Your task to perform on an android device: Search for "usb-a to usb-b" on amazon, select the first entry, and add it to the cart. Image 0: 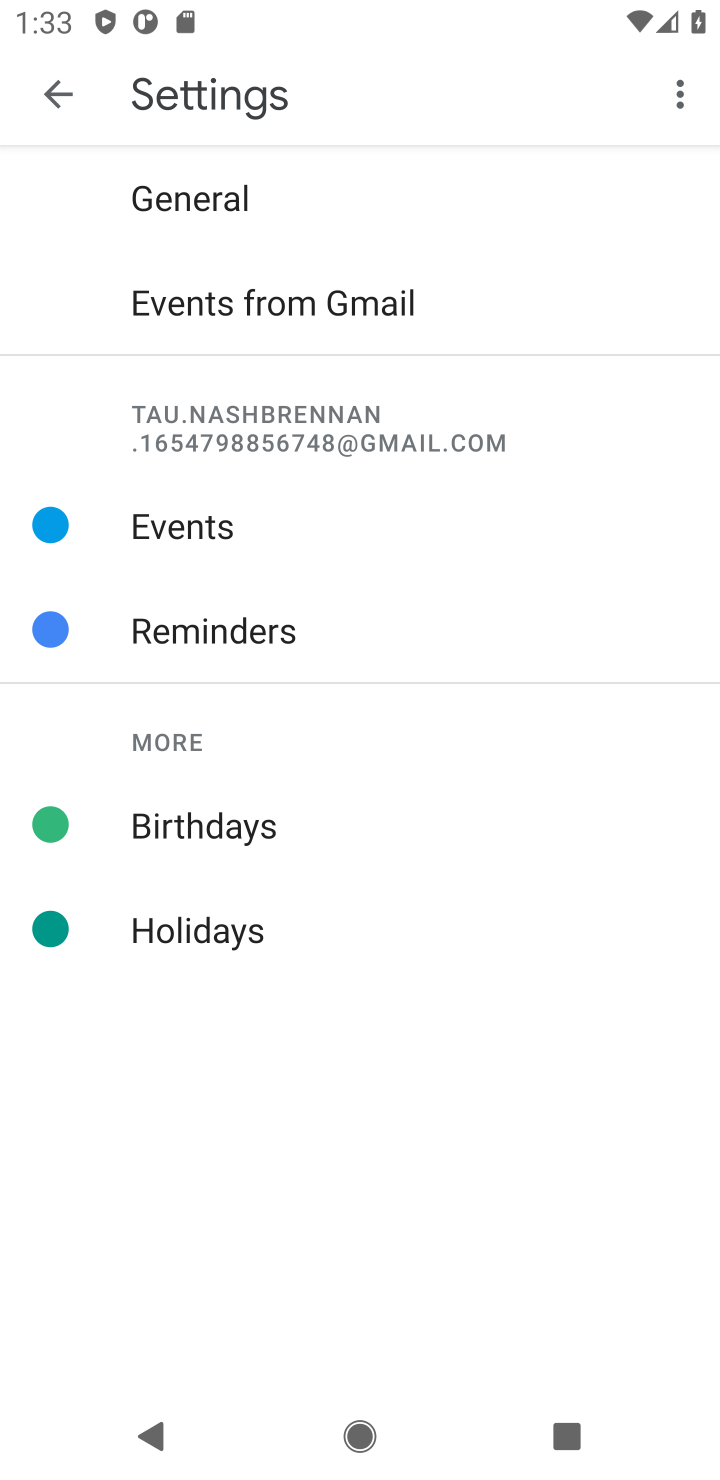
Step 0: press home button
Your task to perform on an android device: Search for "usb-a to usb-b" on amazon, select the first entry, and add it to the cart. Image 1: 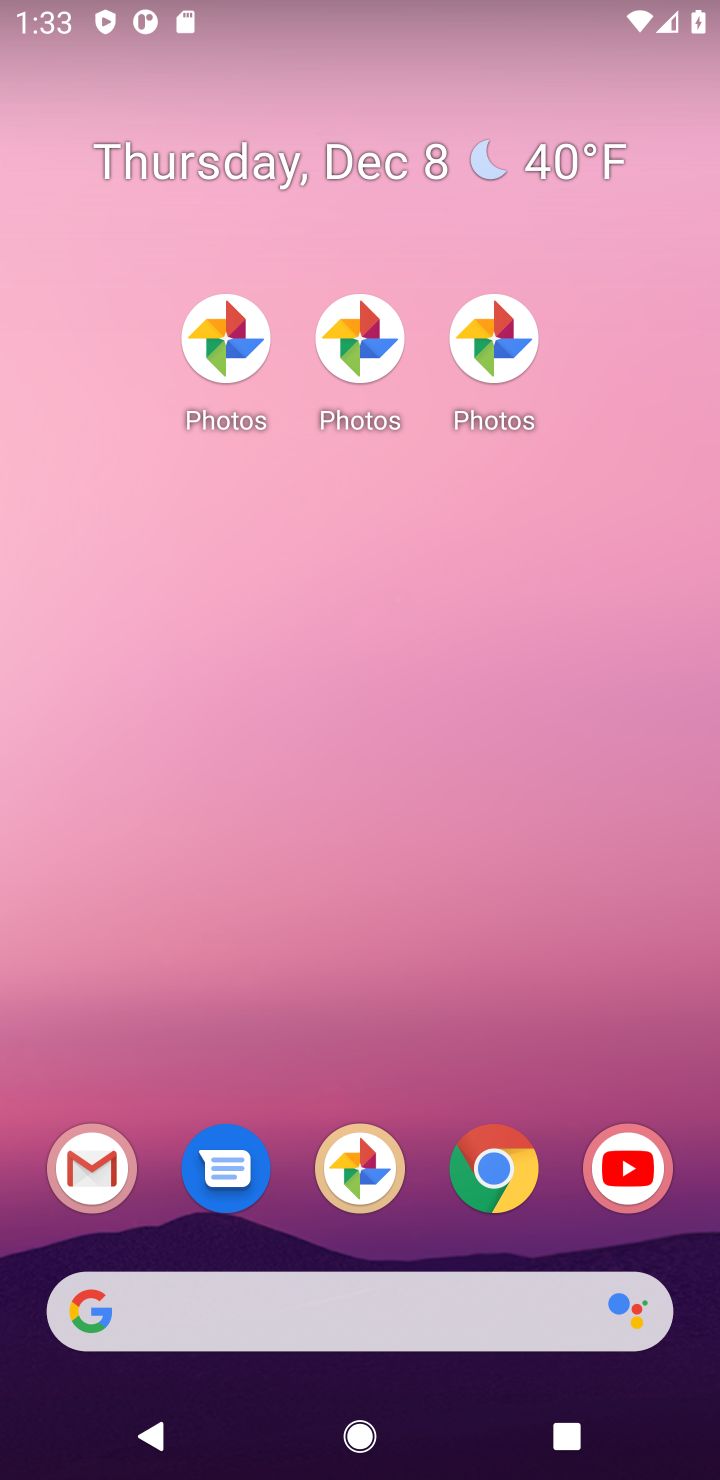
Step 1: drag from (335, 1216) to (355, 613)
Your task to perform on an android device: Search for "usb-a to usb-b" on amazon, select the first entry, and add it to the cart. Image 2: 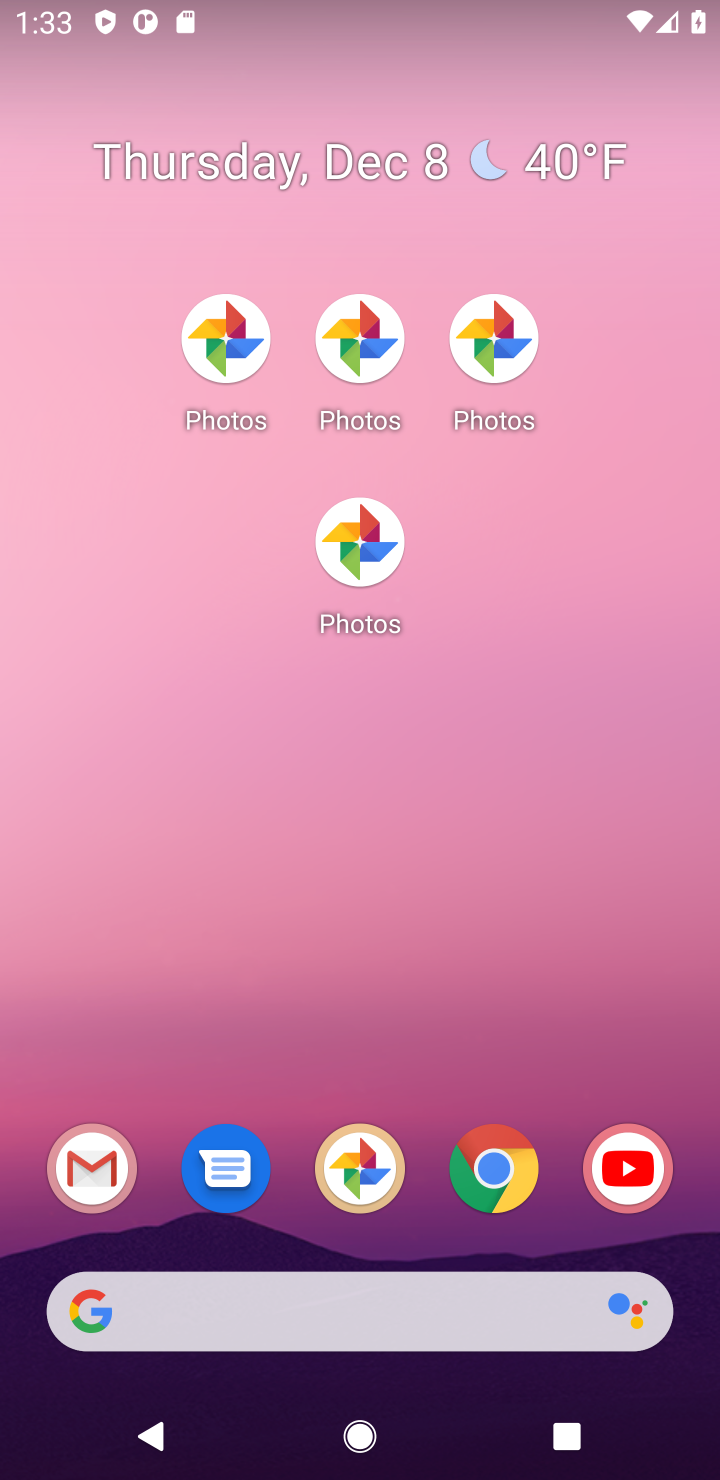
Step 2: drag from (406, 970) to (418, 641)
Your task to perform on an android device: Search for "usb-a to usb-b" on amazon, select the first entry, and add it to the cart. Image 3: 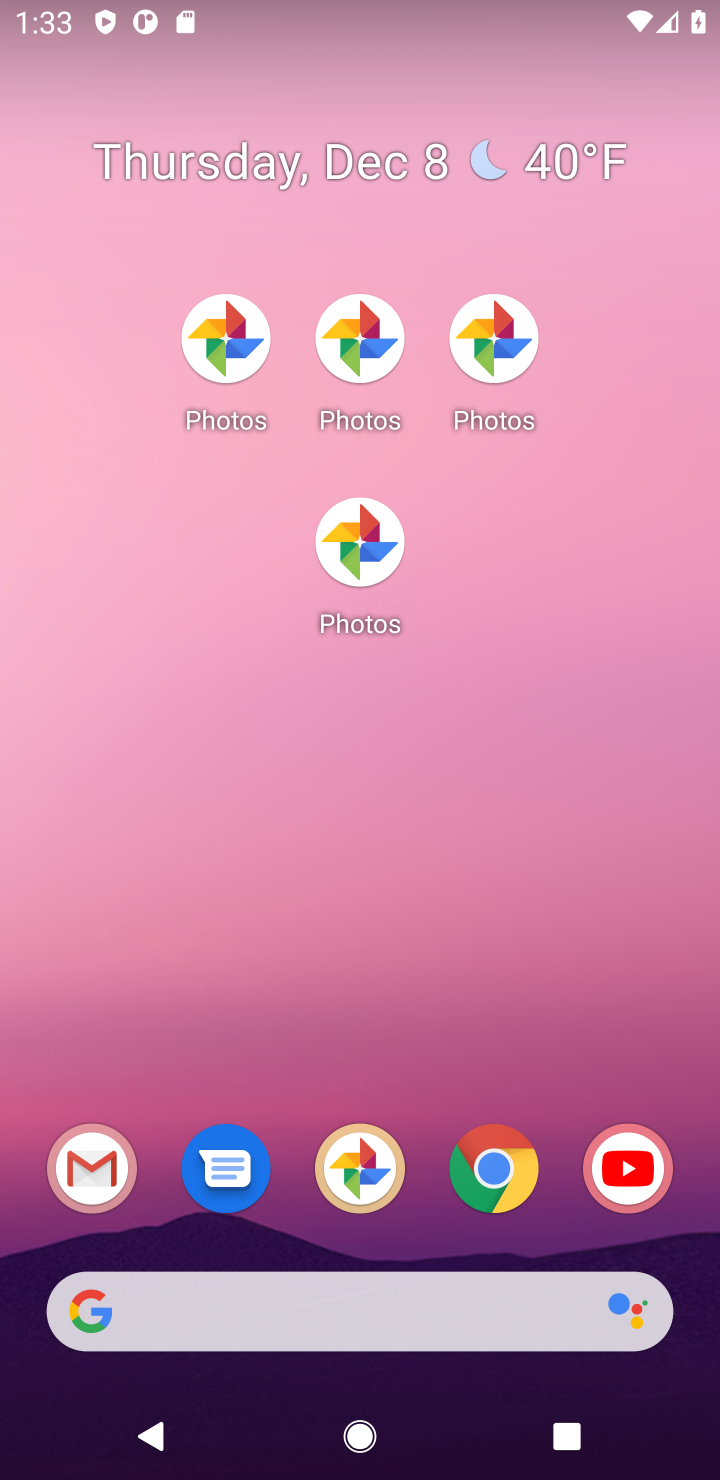
Step 3: drag from (406, 1256) to (439, 414)
Your task to perform on an android device: Search for "usb-a to usb-b" on amazon, select the first entry, and add it to the cart. Image 4: 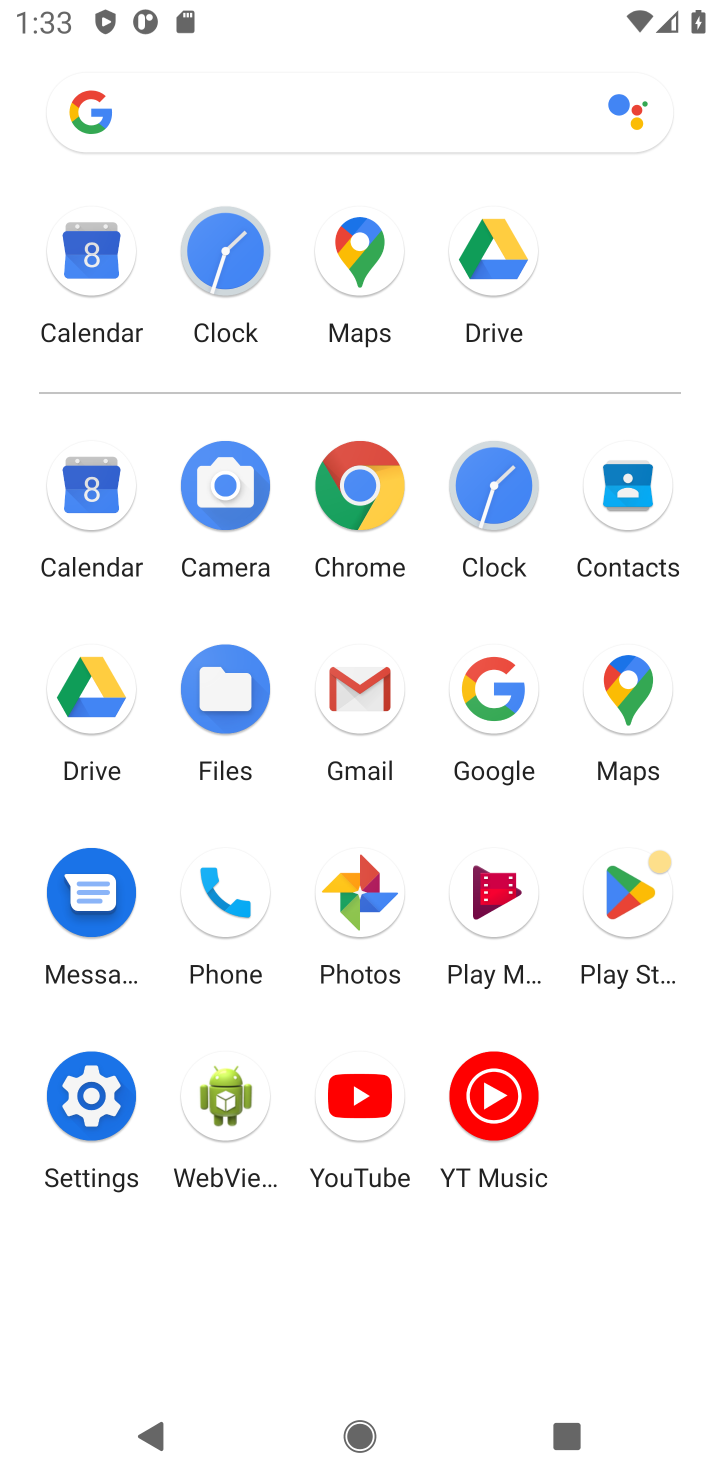
Step 4: click (487, 666)
Your task to perform on an android device: Search for "usb-a to usb-b" on amazon, select the first entry, and add it to the cart. Image 5: 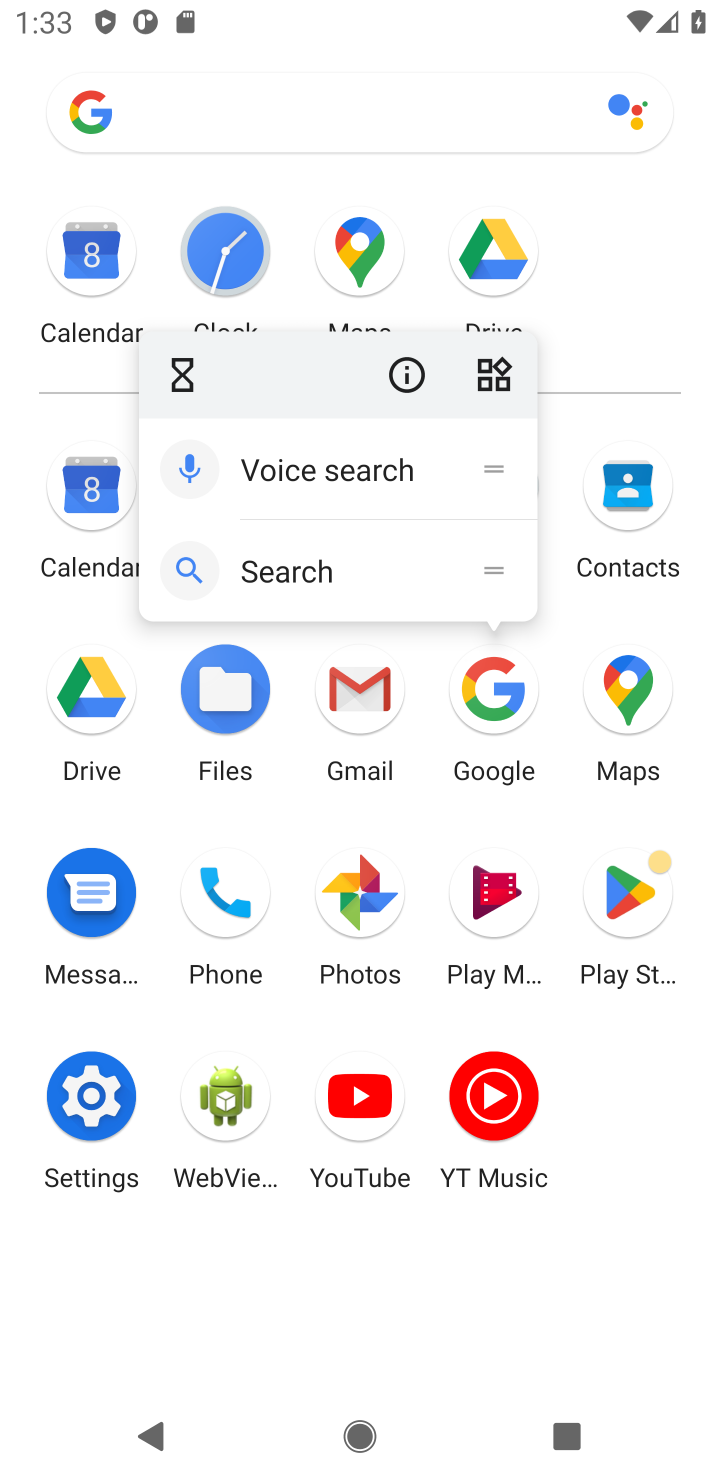
Step 5: click (481, 699)
Your task to perform on an android device: Search for "usb-a to usb-b" on amazon, select the first entry, and add it to the cart. Image 6: 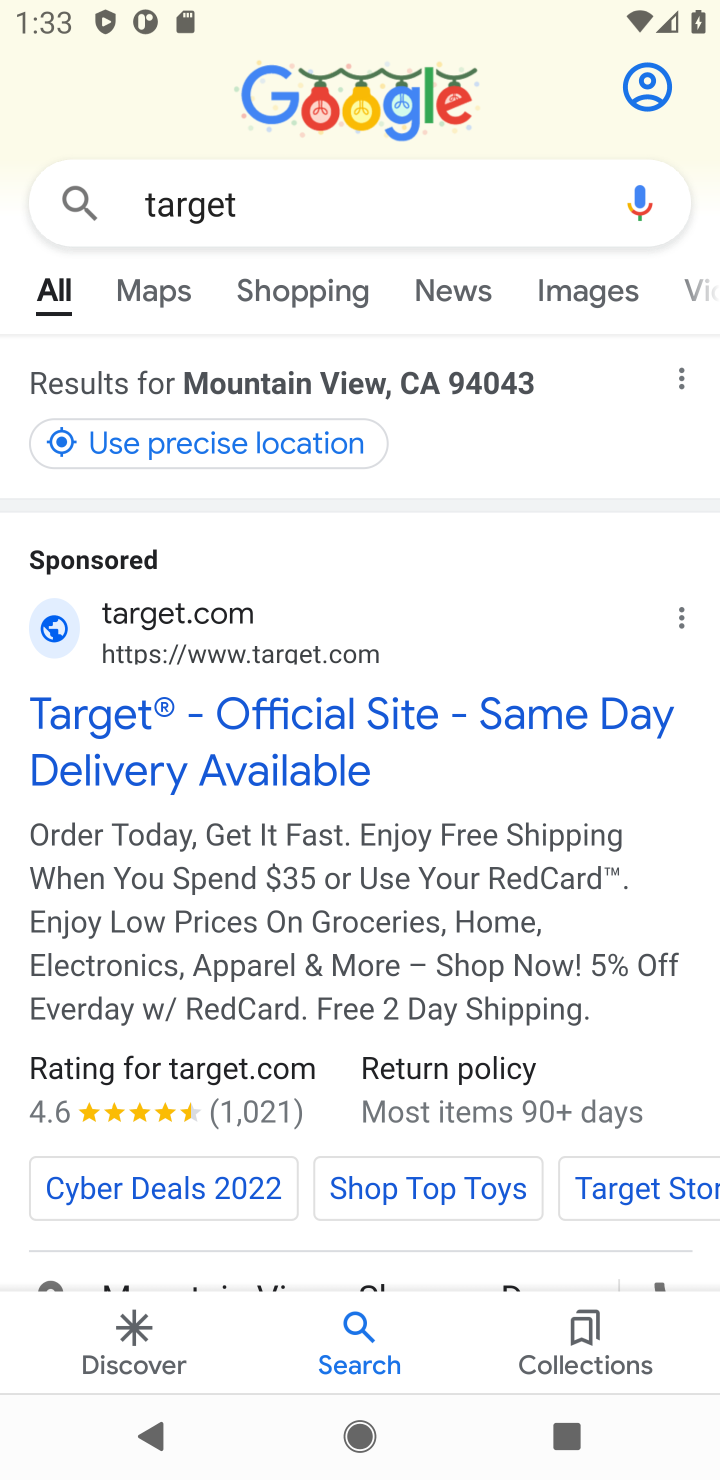
Step 6: click (179, 207)
Your task to perform on an android device: Search for "usb-a to usb-b" on amazon, select the first entry, and add it to the cart. Image 7: 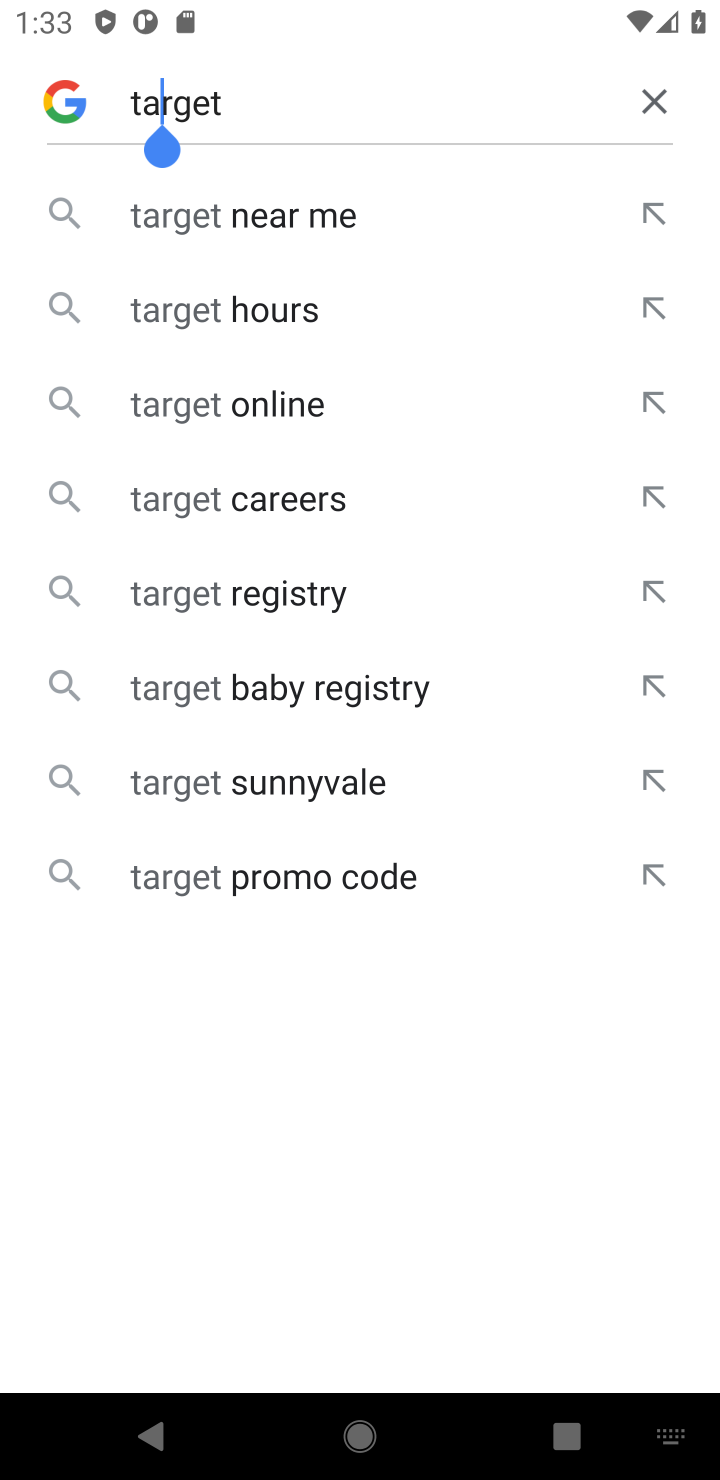
Step 7: click (653, 99)
Your task to perform on an android device: Search for "usb-a to usb-b" on amazon, select the first entry, and add it to the cart. Image 8: 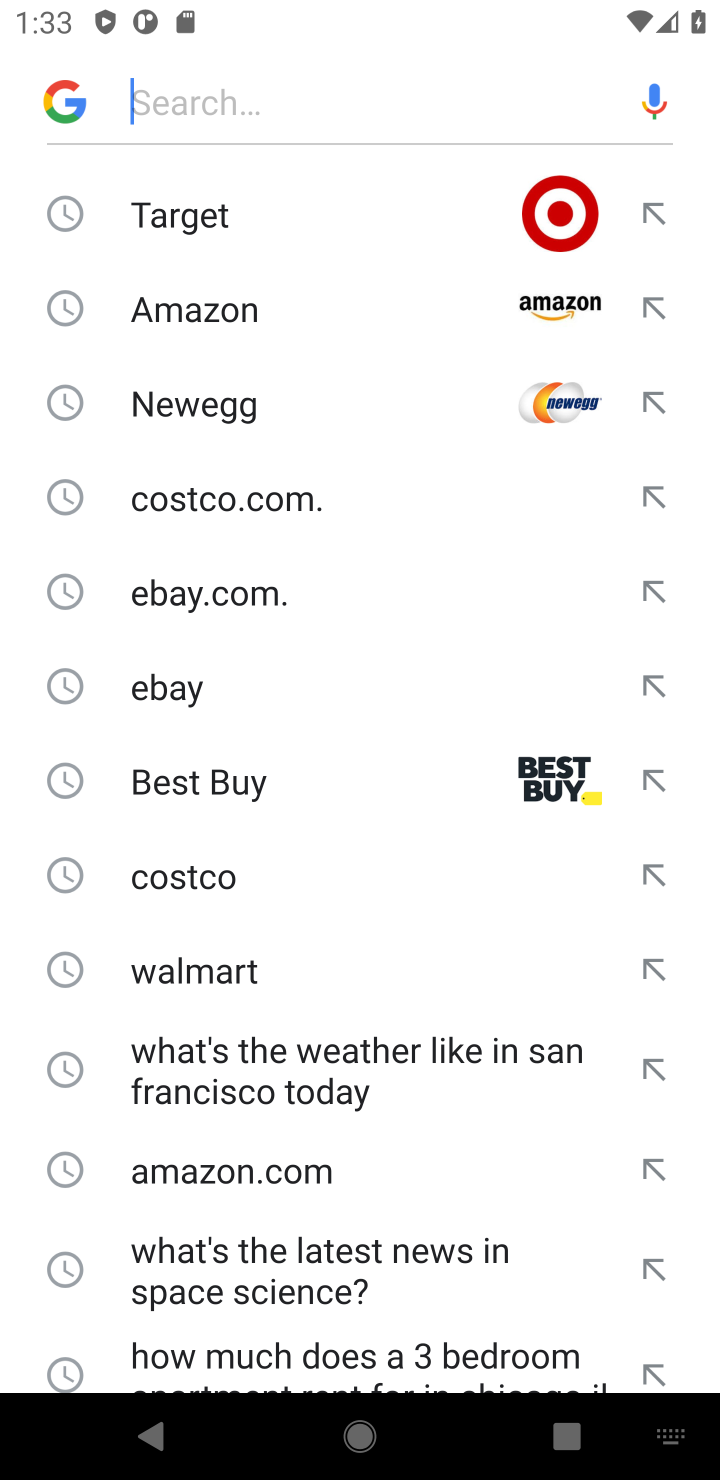
Step 8: click (185, 317)
Your task to perform on an android device: Search for "usb-a to usb-b" on amazon, select the first entry, and add it to the cart. Image 9: 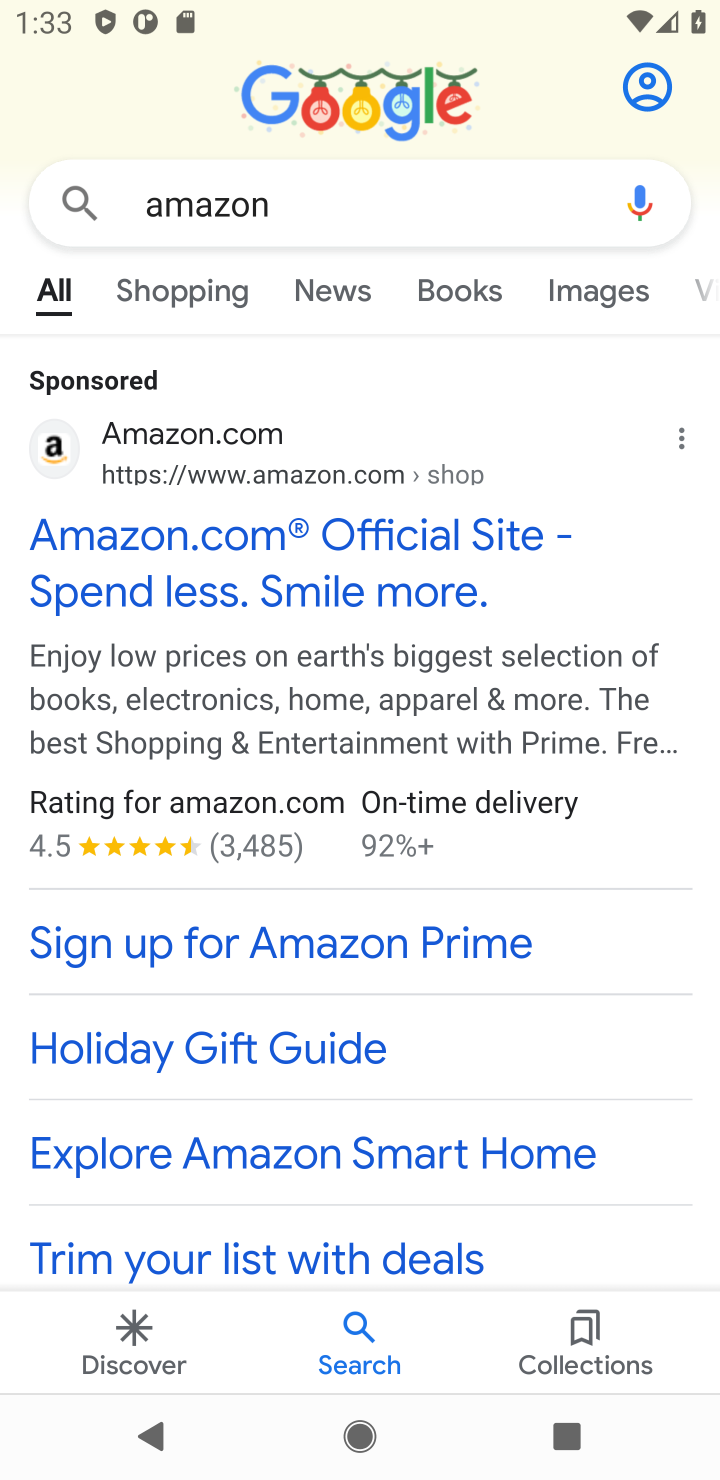
Step 9: click (215, 605)
Your task to perform on an android device: Search for "usb-a to usb-b" on amazon, select the first entry, and add it to the cart. Image 10: 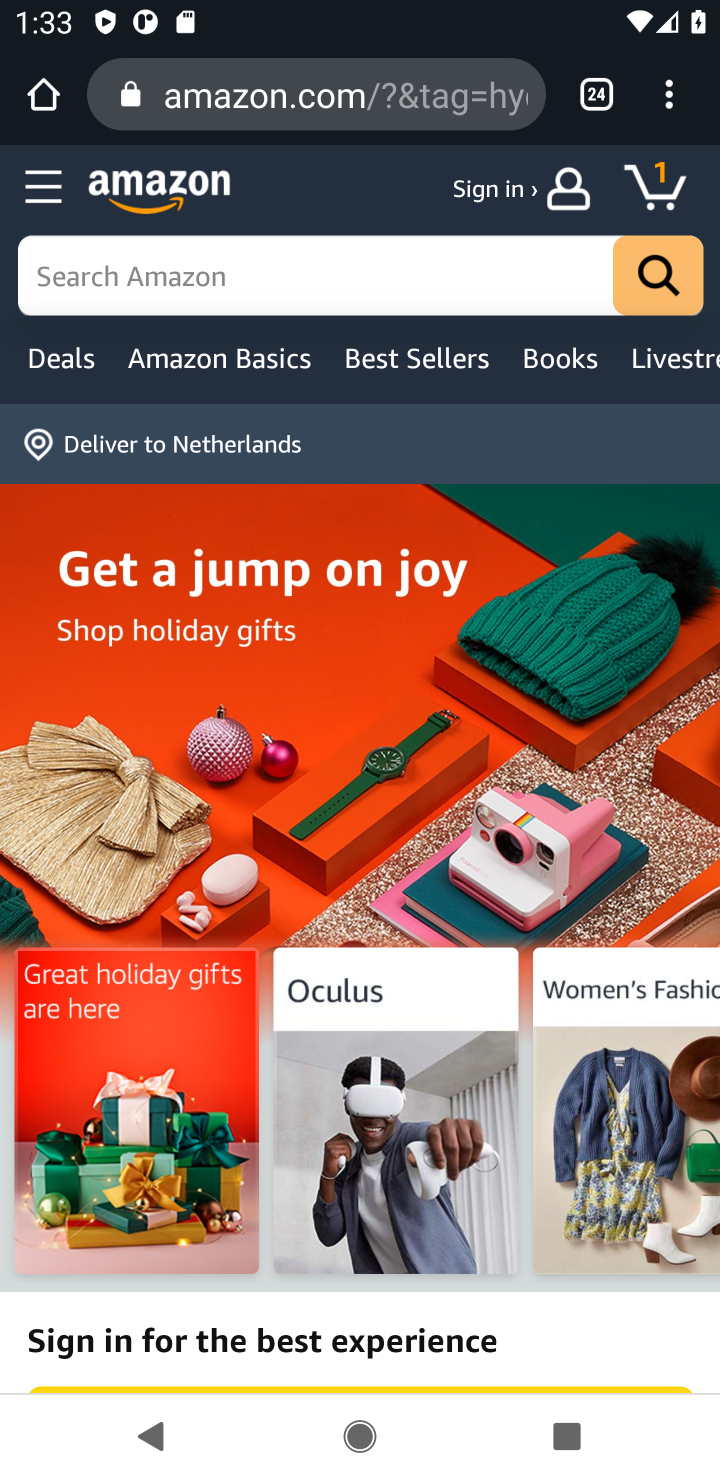
Step 10: click (167, 287)
Your task to perform on an android device: Search for "usb-a to usb-b" on amazon, select the first entry, and add it to the cart. Image 11: 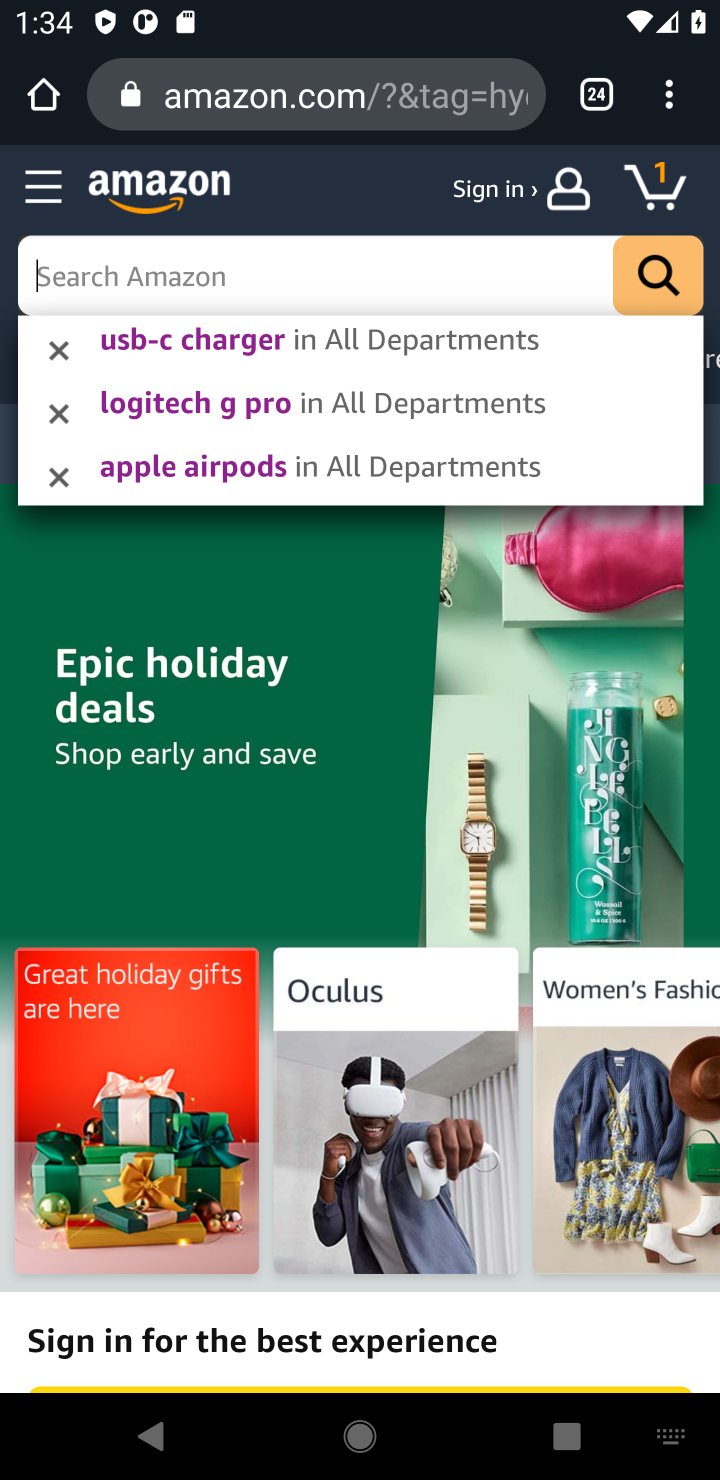
Step 11: type "usb-a to usb-b"
Your task to perform on an android device: Search for "usb-a to usb-b" on amazon, select the first entry, and add it to the cart. Image 12: 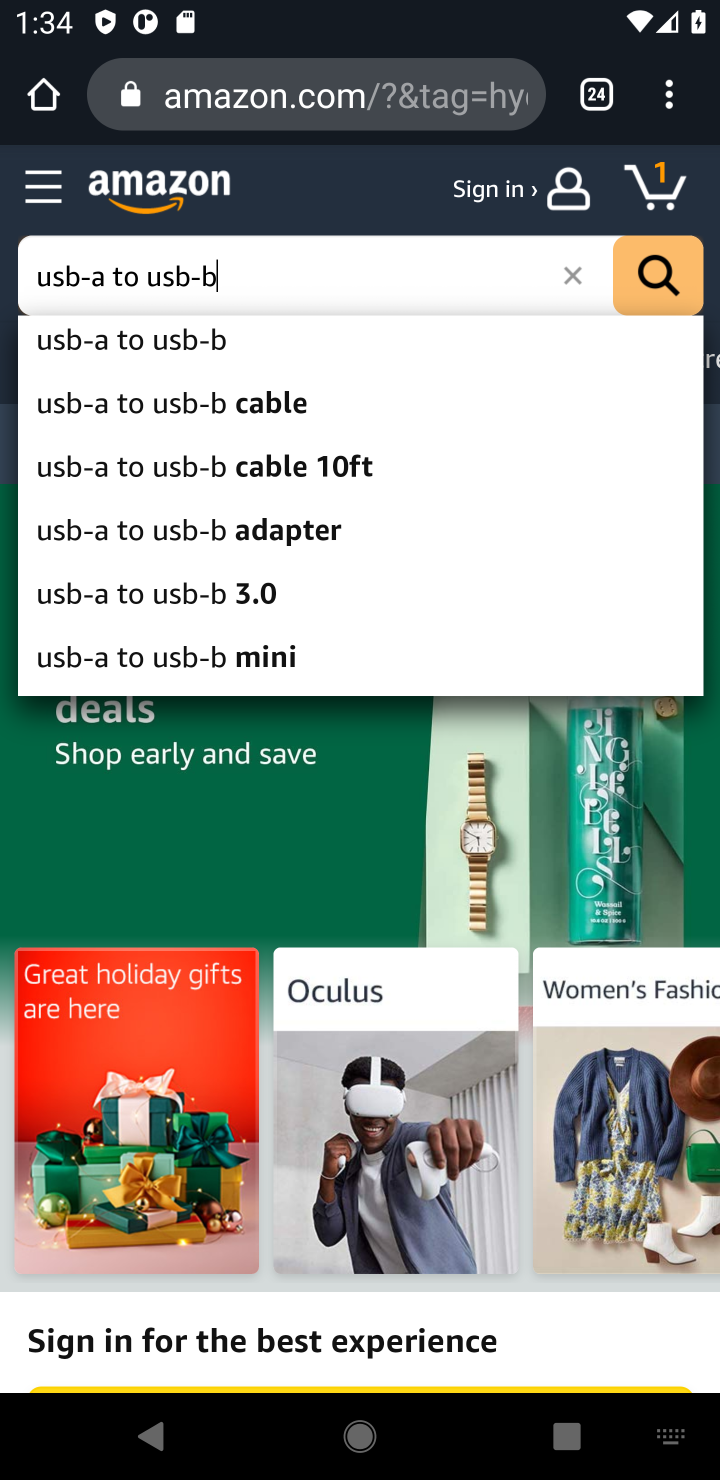
Step 12: click (160, 345)
Your task to perform on an android device: Search for "usb-a to usb-b" on amazon, select the first entry, and add it to the cart. Image 13: 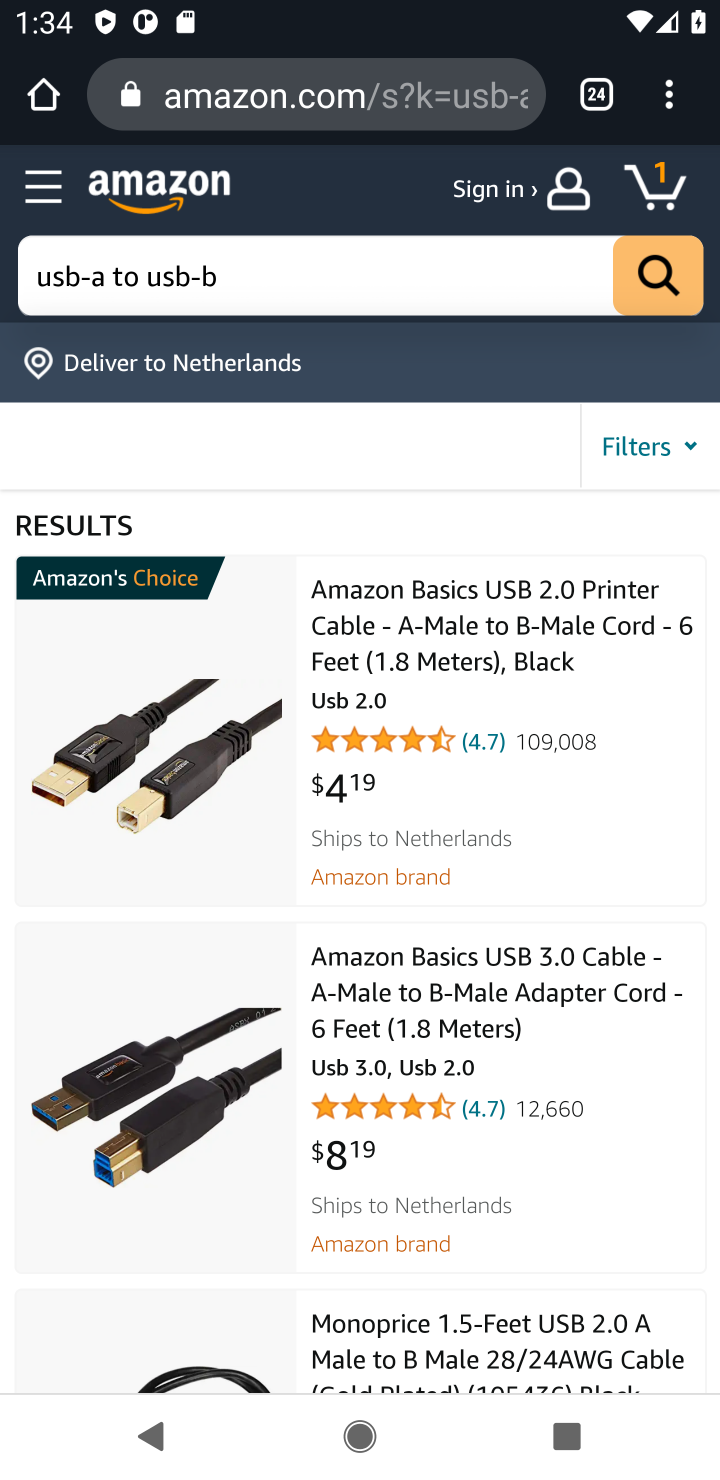
Step 13: click (427, 626)
Your task to perform on an android device: Search for "usb-a to usb-b" on amazon, select the first entry, and add it to the cart. Image 14: 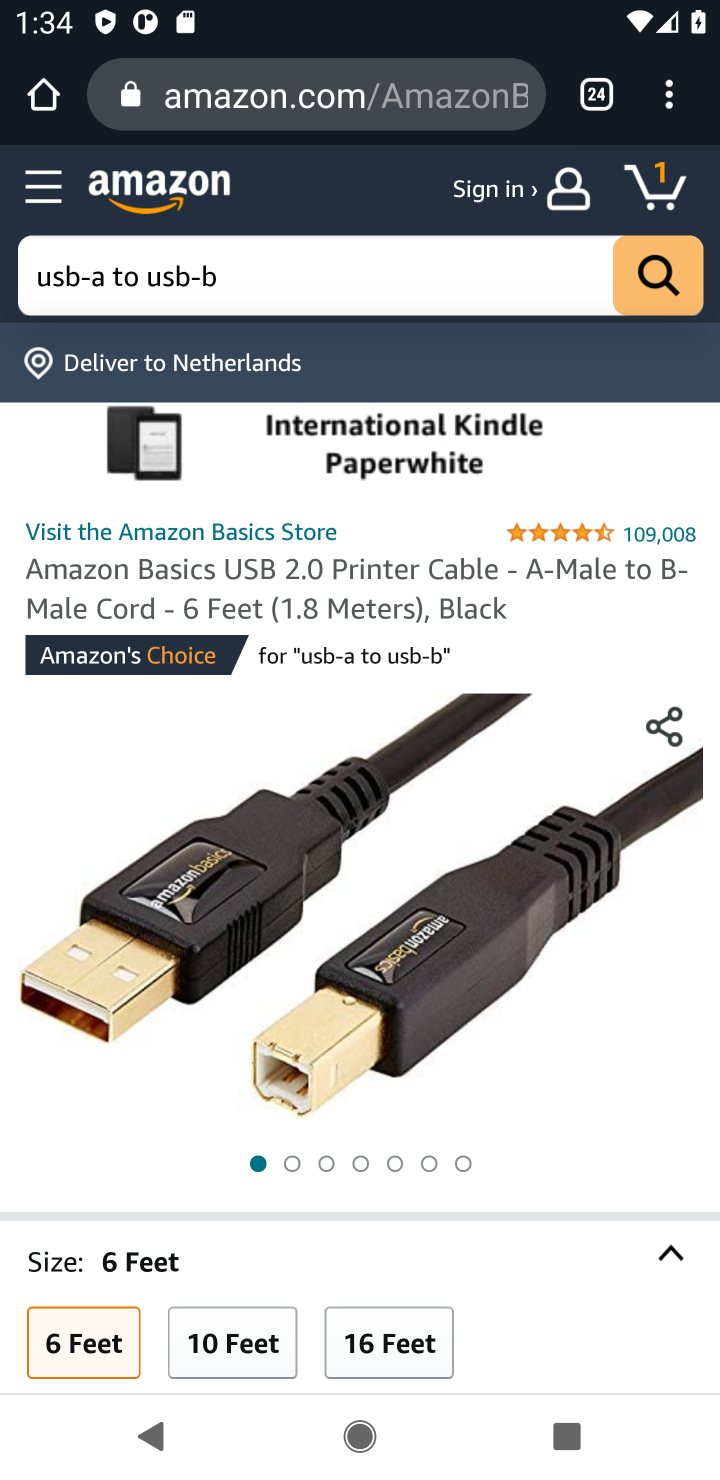
Step 14: drag from (180, 1119) to (185, 457)
Your task to perform on an android device: Search for "usb-a to usb-b" on amazon, select the first entry, and add it to the cart. Image 15: 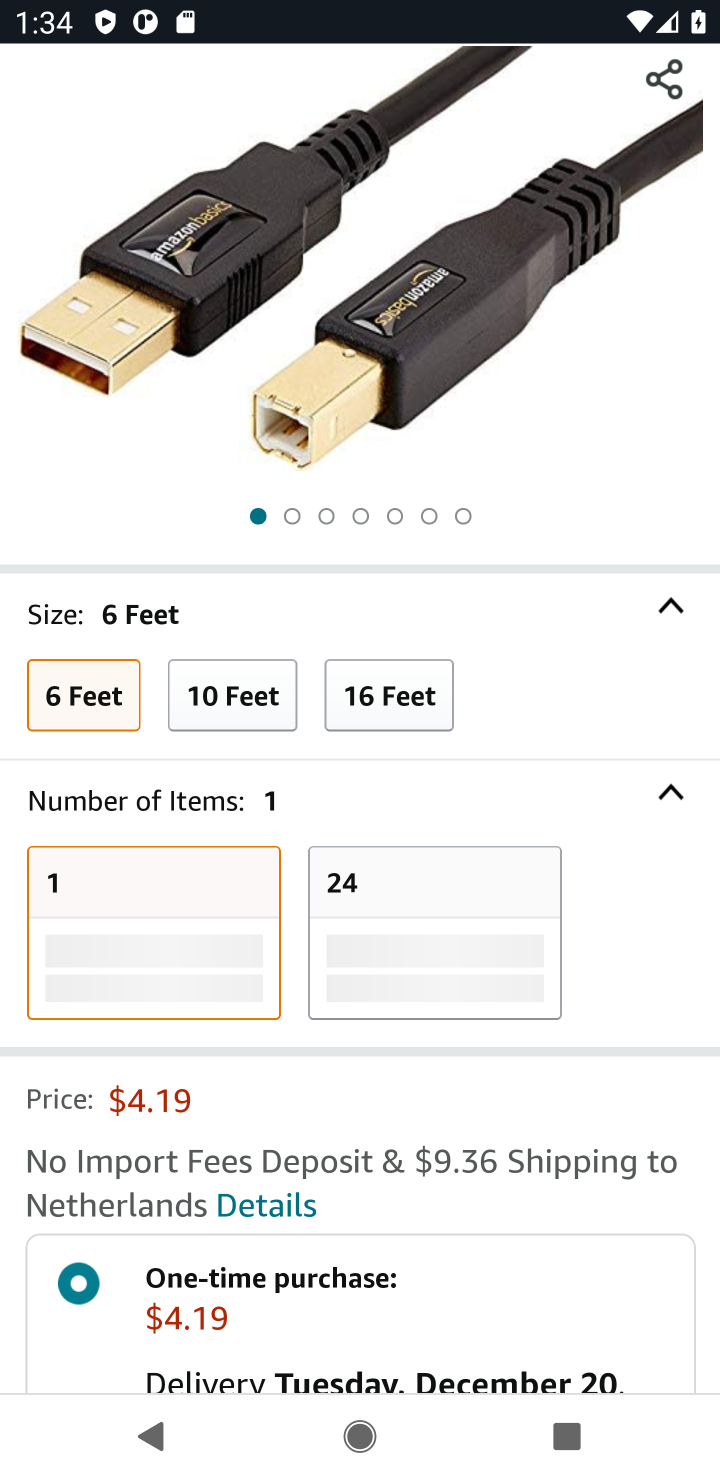
Step 15: drag from (621, 1030) to (567, 686)
Your task to perform on an android device: Search for "usb-a to usb-b" on amazon, select the first entry, and add it to the cart. Image 16: 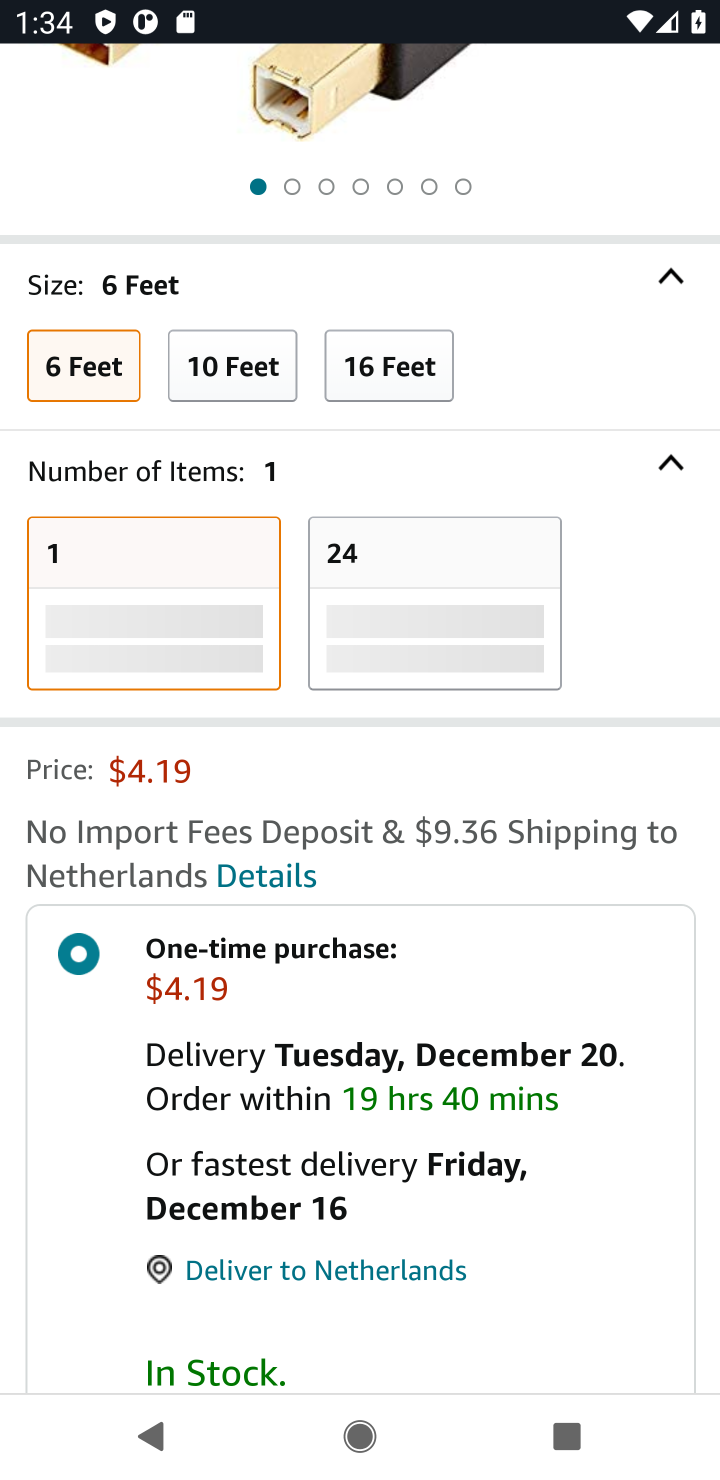
Step 16: drag from (607, 1032) to (616, 653)
Your task to perform on an android device: Search for "usb-a to usb-b" on amazon, select the first entry, and add it to the cart. Image 17: 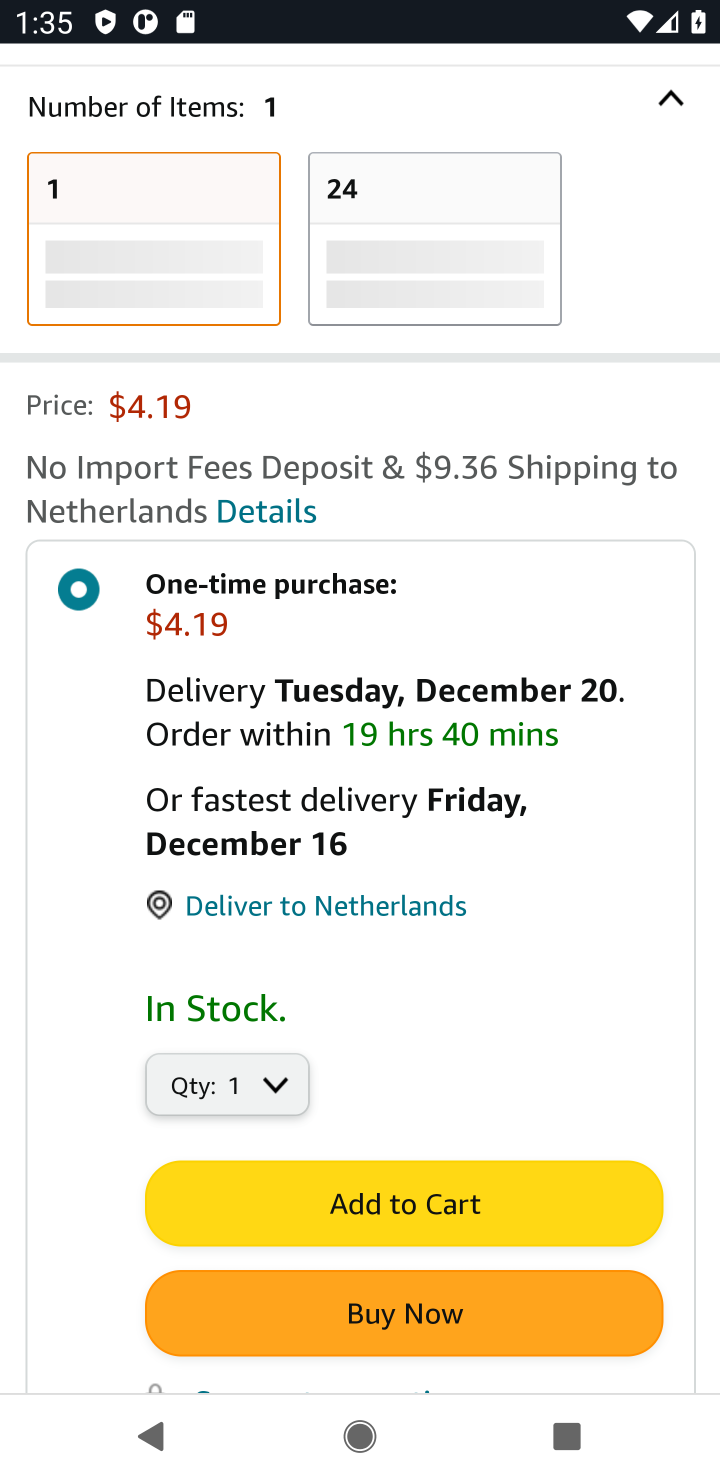
Step 17: click (430, 1210)
Your task to perform on an android device: Search for "usb-a to usb-b" on amazon, select the first entry, and add it to the cart. Image 18: 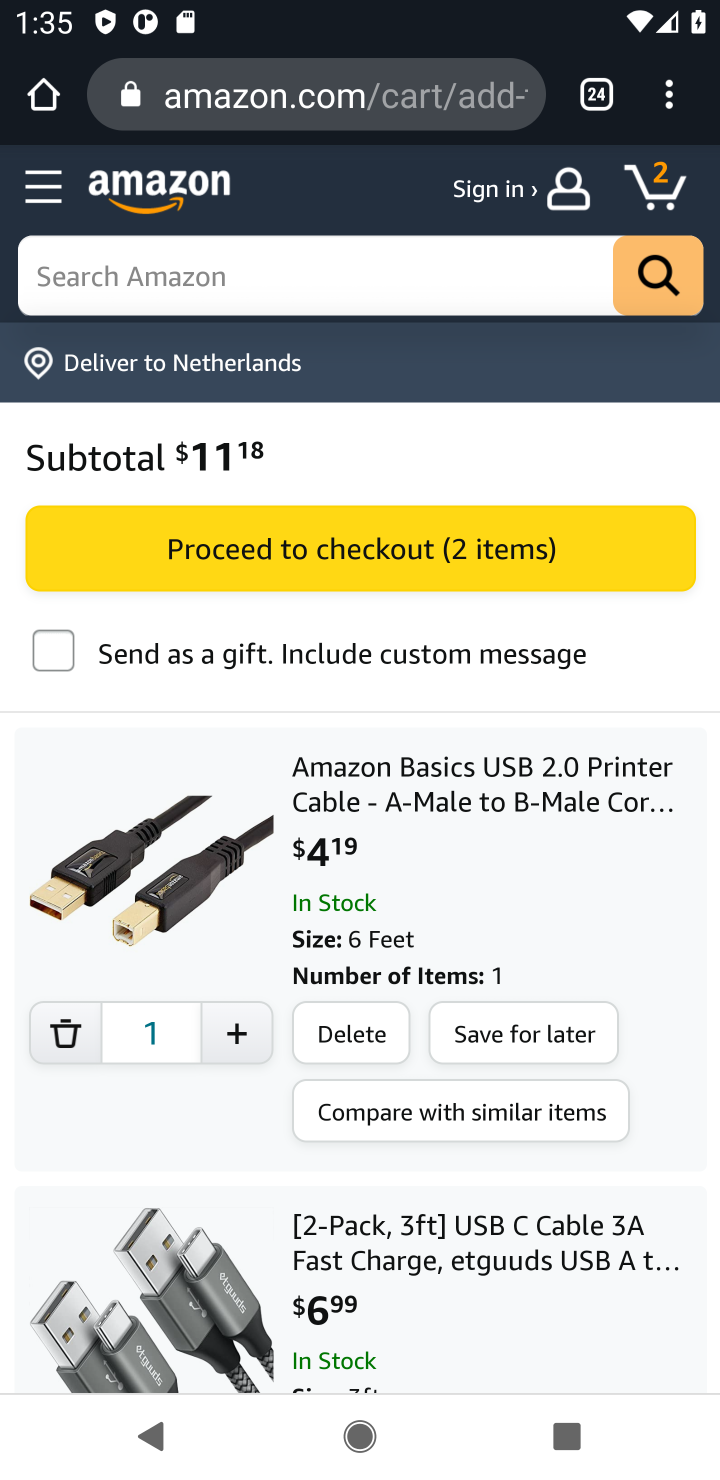
Step 18: task complete